Your task to perform on an android device: Add "sony triple a" to the cart on ebay.com, then select checkout. Image 0: 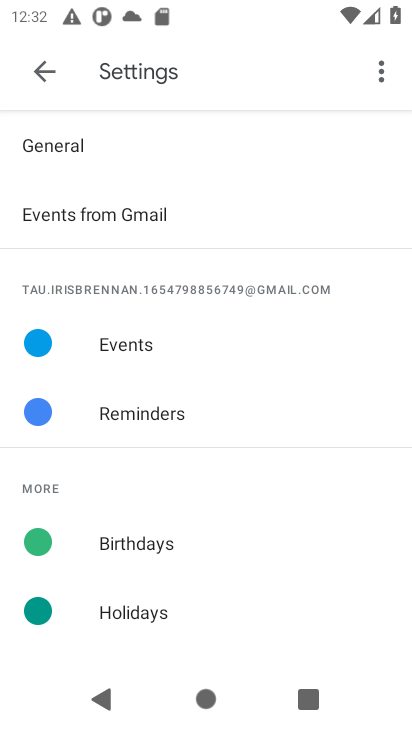
Step 0: task complete